Your task to perform on an android device: open a new tab in the chrome app Image 0: 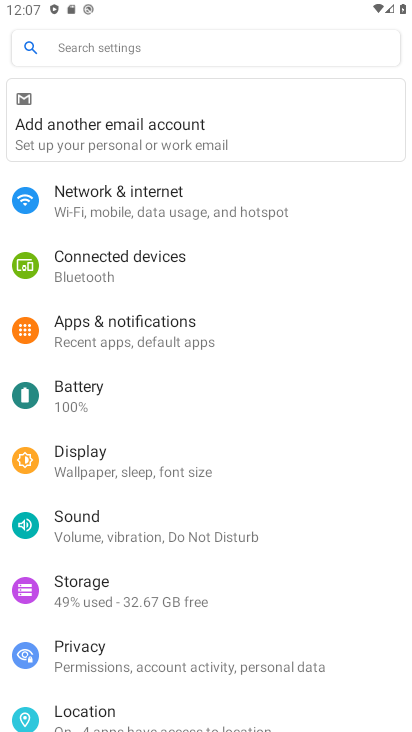
Step 0: press home button
Your task to perform on an android device: open a new tab in the chrome app Image 1: 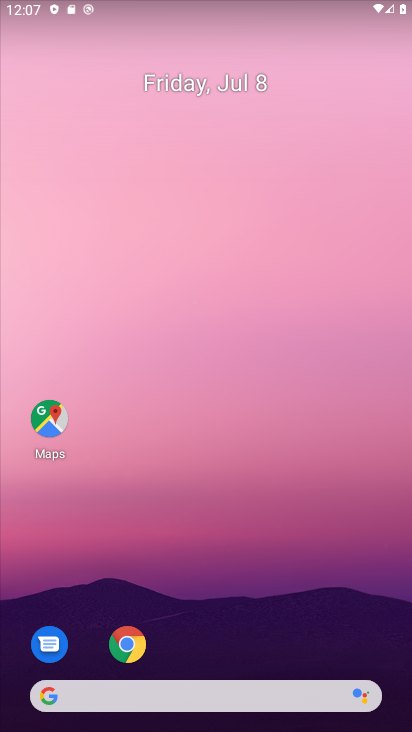
Step 1: click (131, 645)
Your task to perform on an android device: open a new tab in the chrome app Image 2: 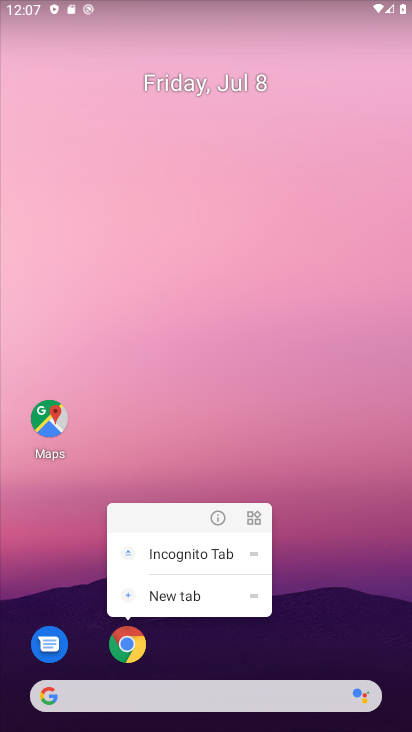
Step 2: click (131, 645)
Your task to perform on an android device: open a new tab in the chrome app Image 3: 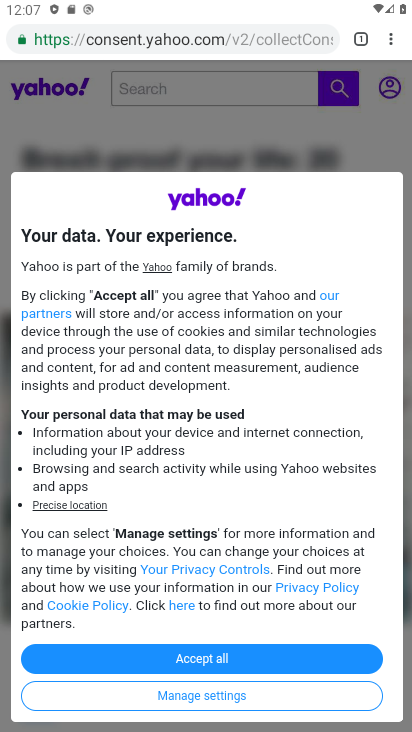
Step 3: click (222, 660)
Your task to perform on an android device: open a new tab in the chrome app Image 4: 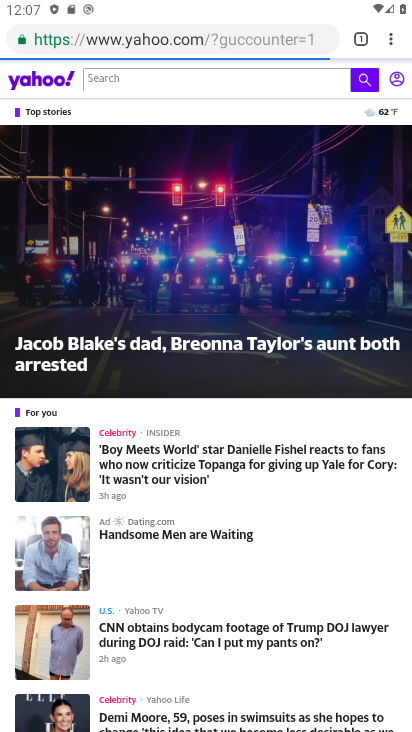
Step 4: click (392, 34)
Your task to perform on an android device: open a new tab in the chrome app Image 5: 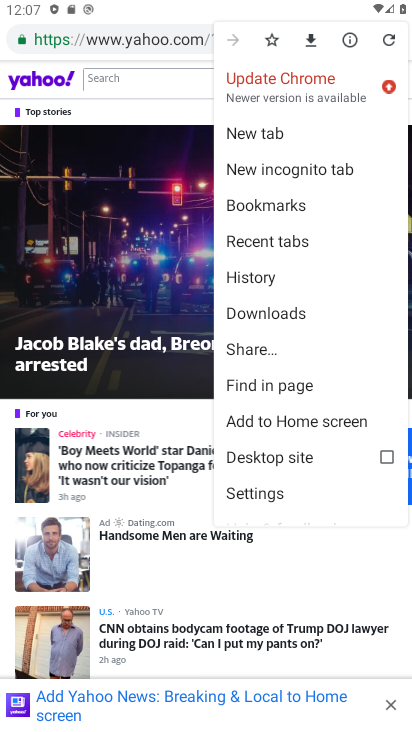
Step 5: click (299, 135)
Your task to perform on an android device: open a new tab in the chrome app Image 6: 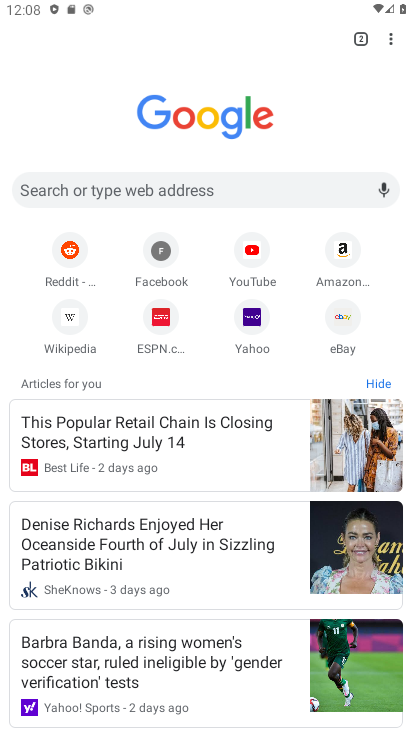
Step 6: task complete